Your task to perform on an android device: Open Android settings Image 0: 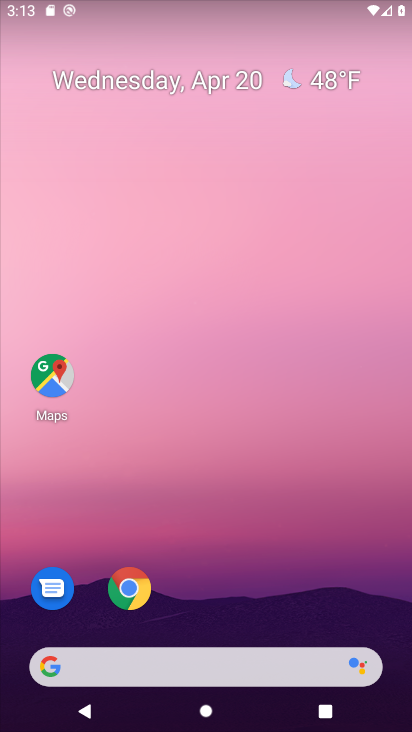
Step 0: drag from (304, 548) to (342, 39)
Your task to perform on an android device: Open Android settings Image 1: 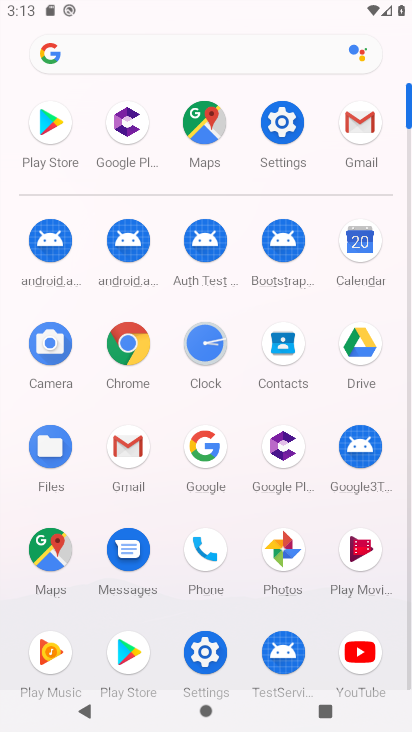
Step 1: click (284, 125)
Your task to perform on an android device: Open Android settings Image 2: 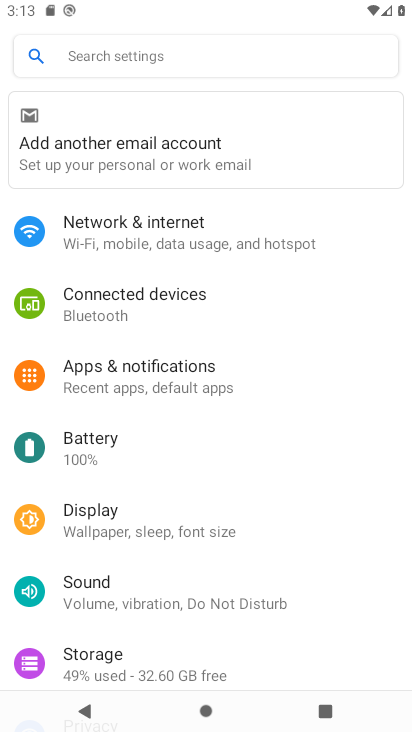
Step 2: drag from (364, 486) to (374, 353)
Your task to perform on an android device: Open Android settings Image 3: 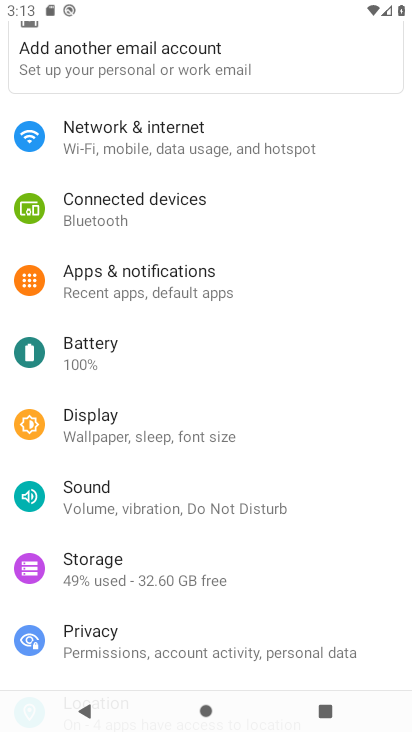
Step 3: drag from (333, 497) to (388, 313)
Your task to perform on an android device: Open Android settings Image 4: 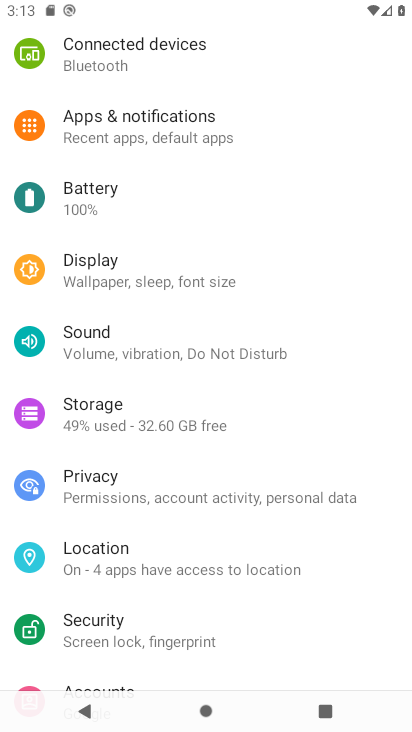
Step 4: drag from (313, 551) to (348, 340)
Your task to perform on an android device: Open Android settings Image 5: 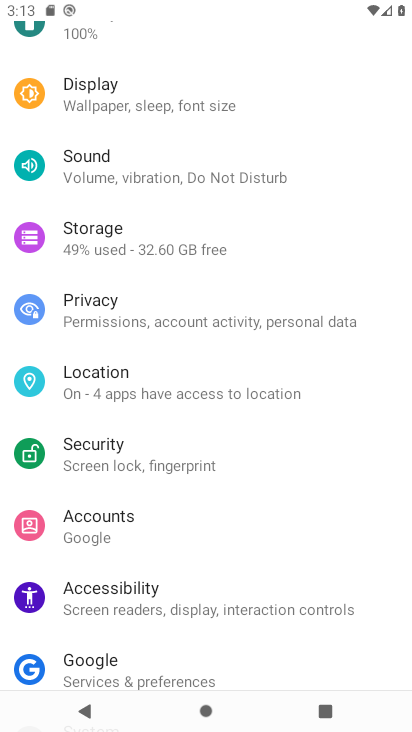
Step 5: drag from (325, 562) to (369, 326)
Your task to perform on an android device: Open Android settings Image 6: 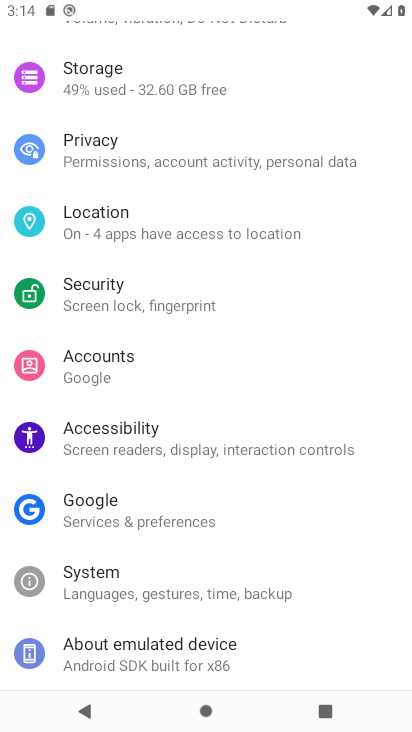
Step 6: click (264, 600)
Your task to perform on an android device: Open Android settings Image 7: 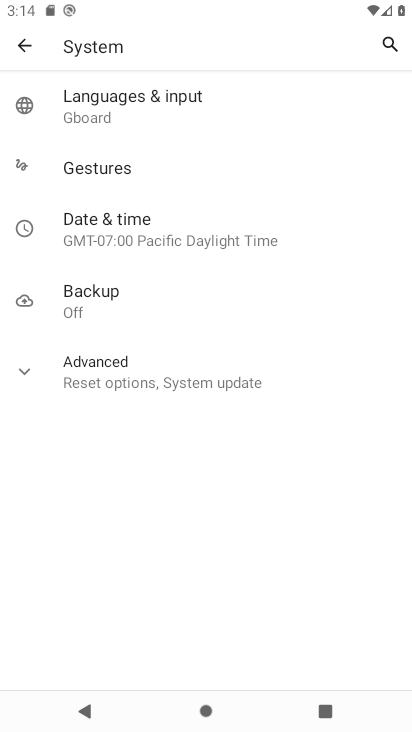
Step 7: click (203, 387)
Your task to perform on an android device: Open Android settings Image 8: 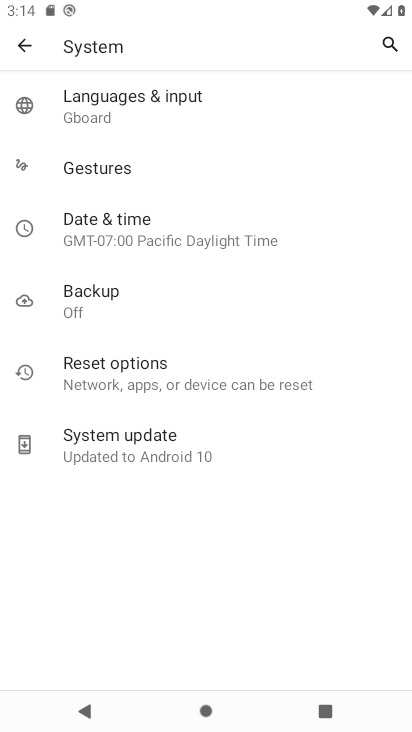
Step 8: task complete